Your task to perform on an android device: change the clock display to show seconds Image 0: 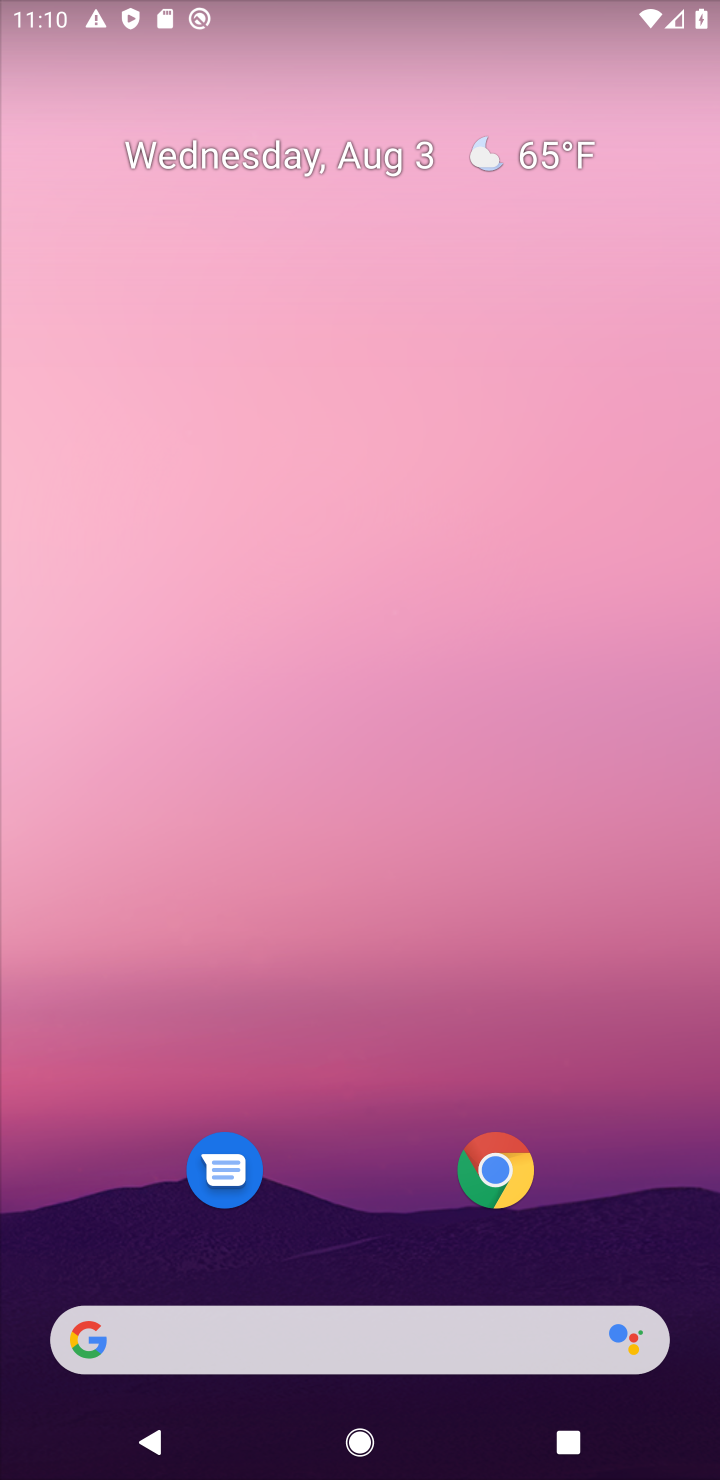
Step 0: click (238, 306)
Your task to perform on an android device: change the clock display to show seconds Image 1: 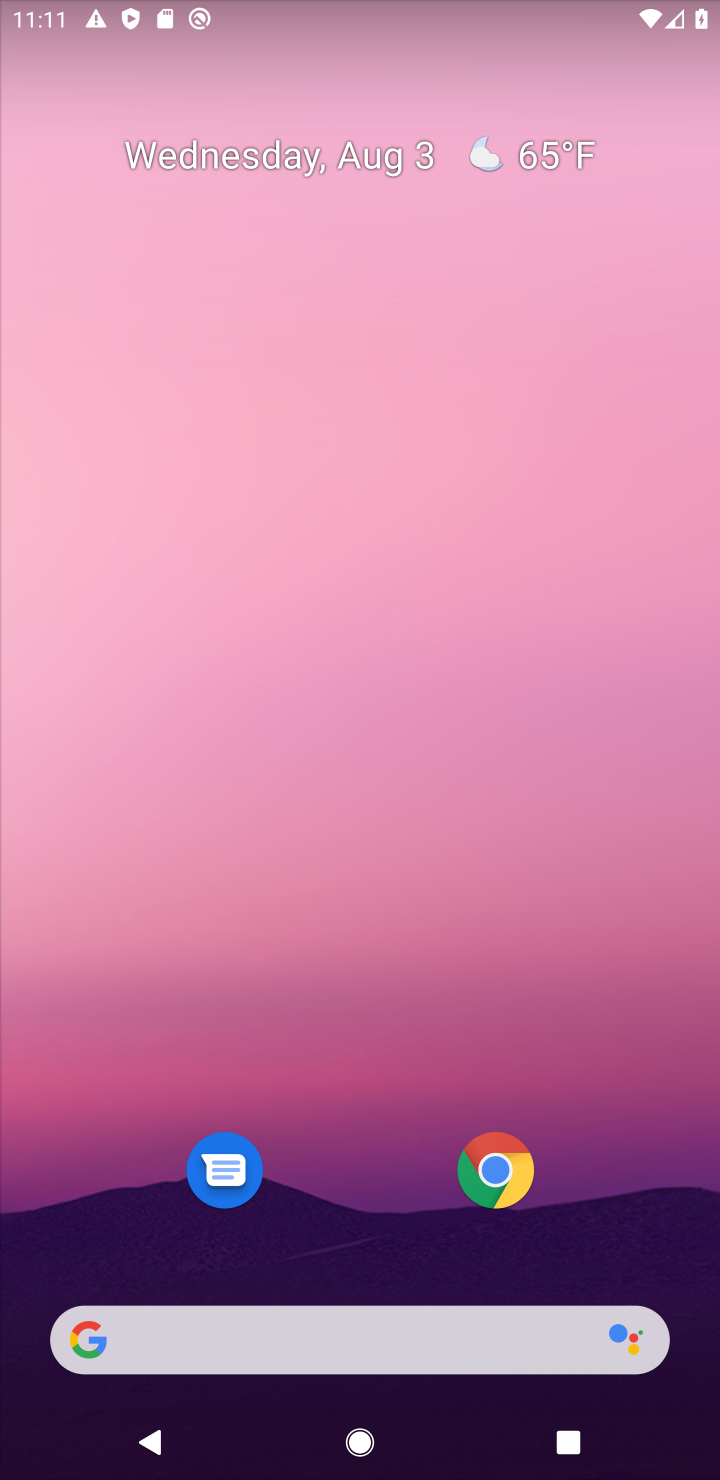
Step 1: drag from (332, 723) to (350, 88)
Your task to perform on an android device: change the clock display to show seconds Image 2: 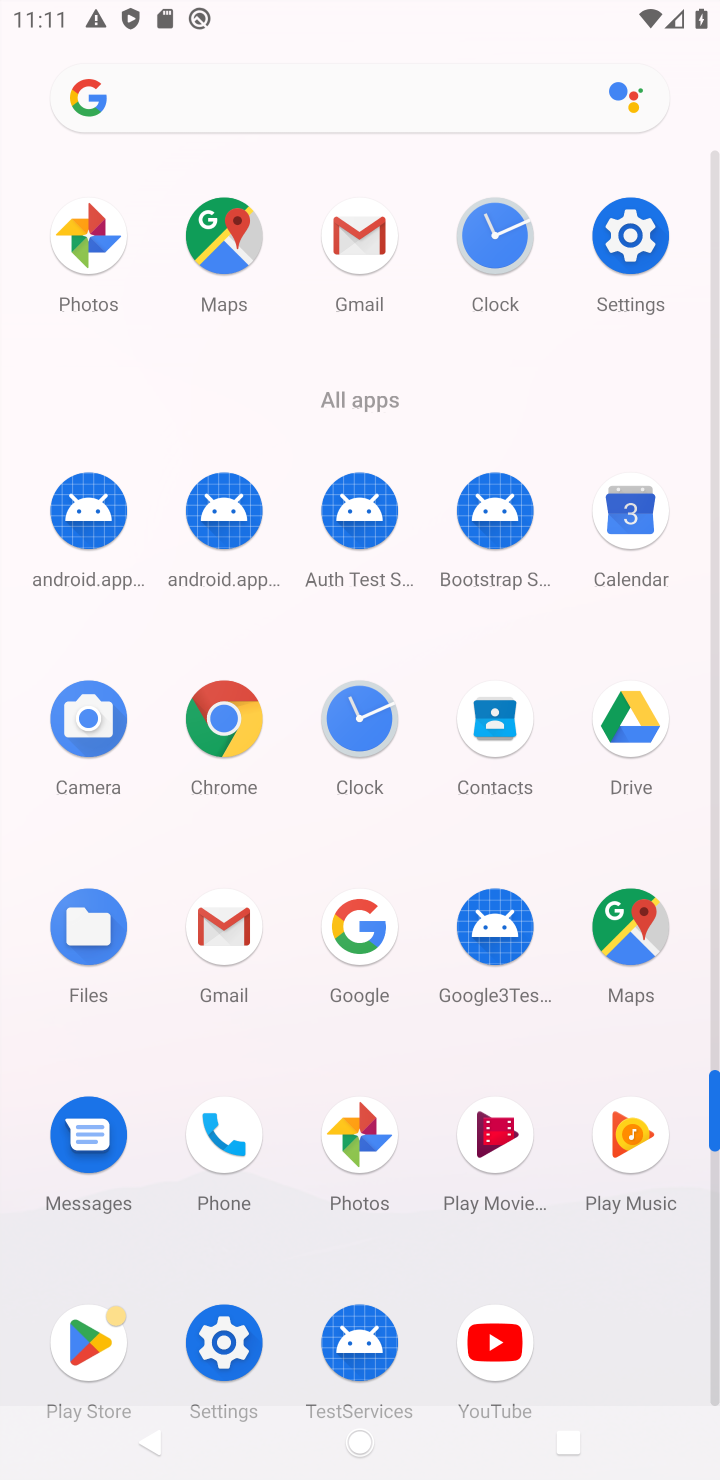
Step 2: drag from (354, 1225) to (314, 282)
Your task to perform on an android device: change the clock display to show seconds Image 3: 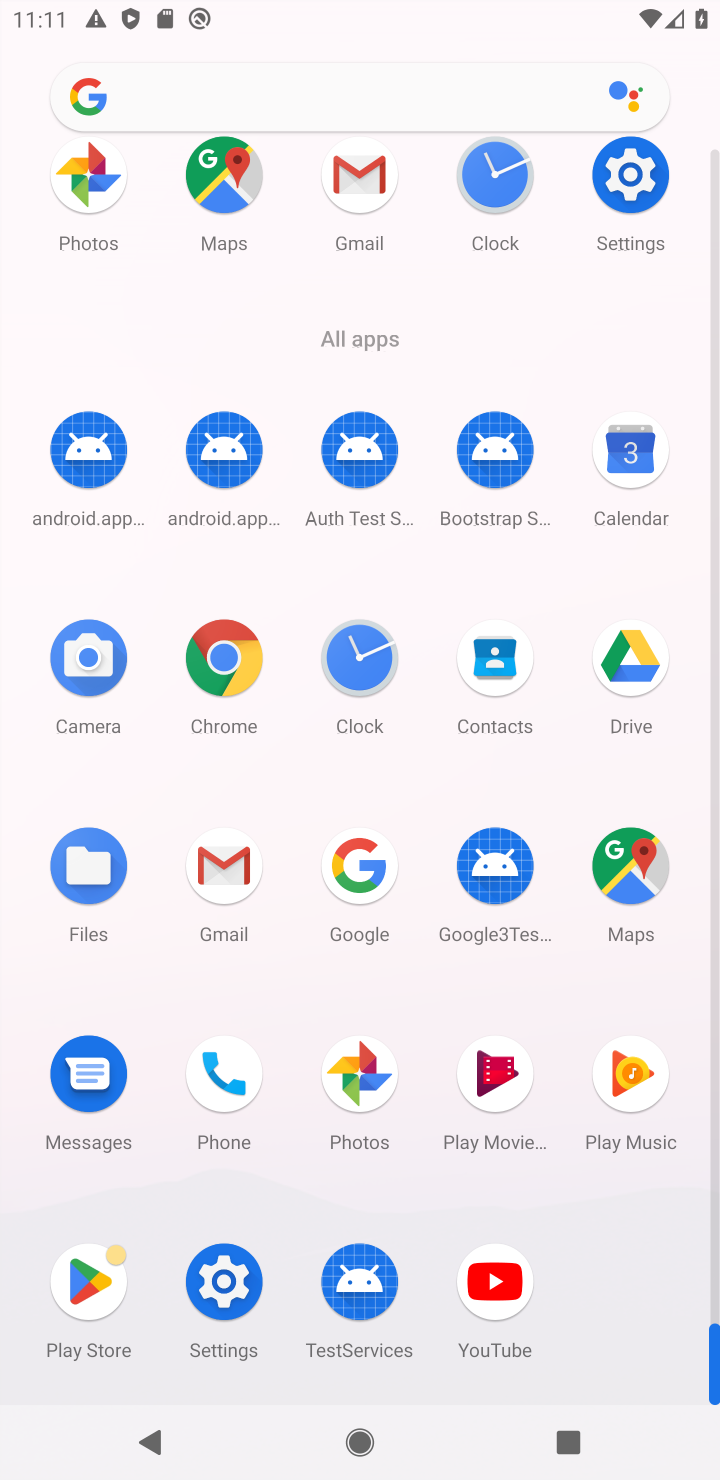
Step 3: drag from (326, 503) to (363, 416)
Your task to perform on an android device: change the clock display to show seconds Image 4: 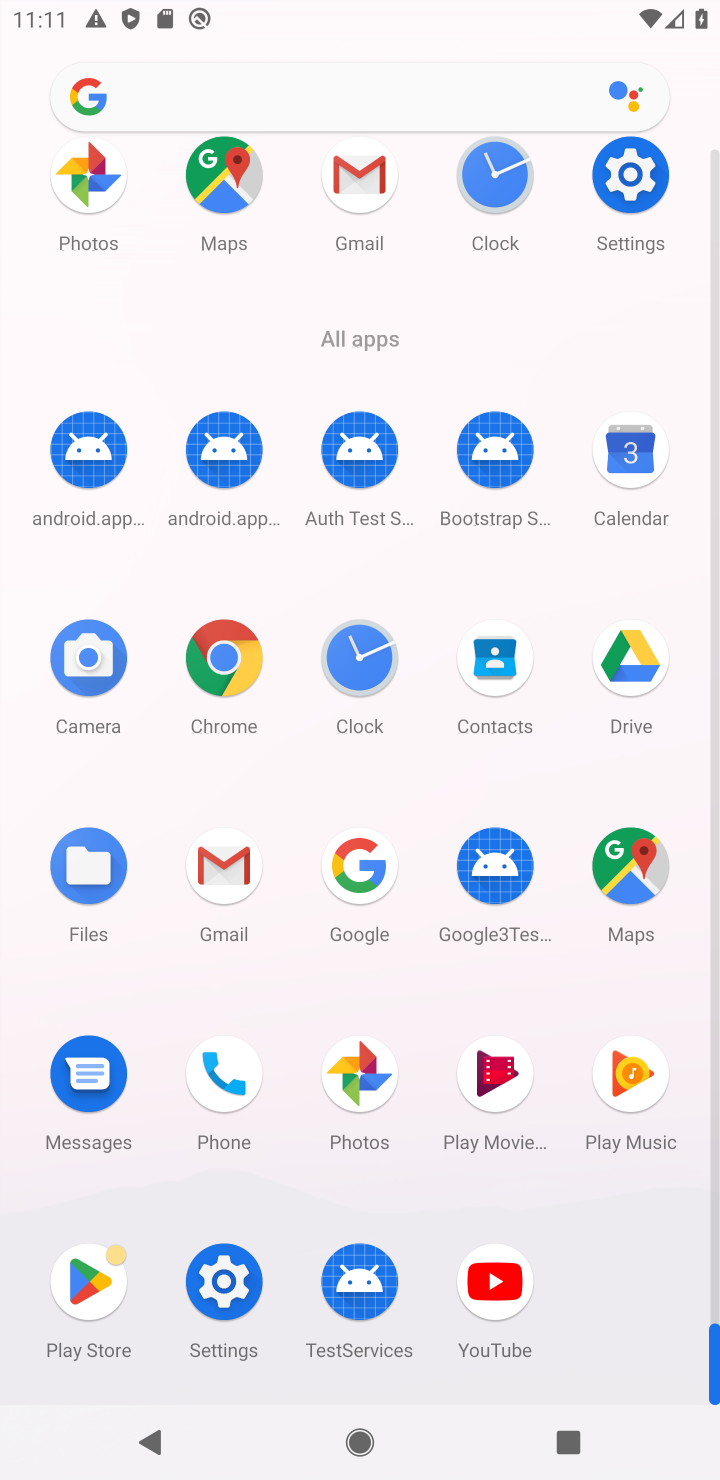
Step 4: click (365, 661)
Your task to perform on an android device: change the clock display to show seconds Image 5: 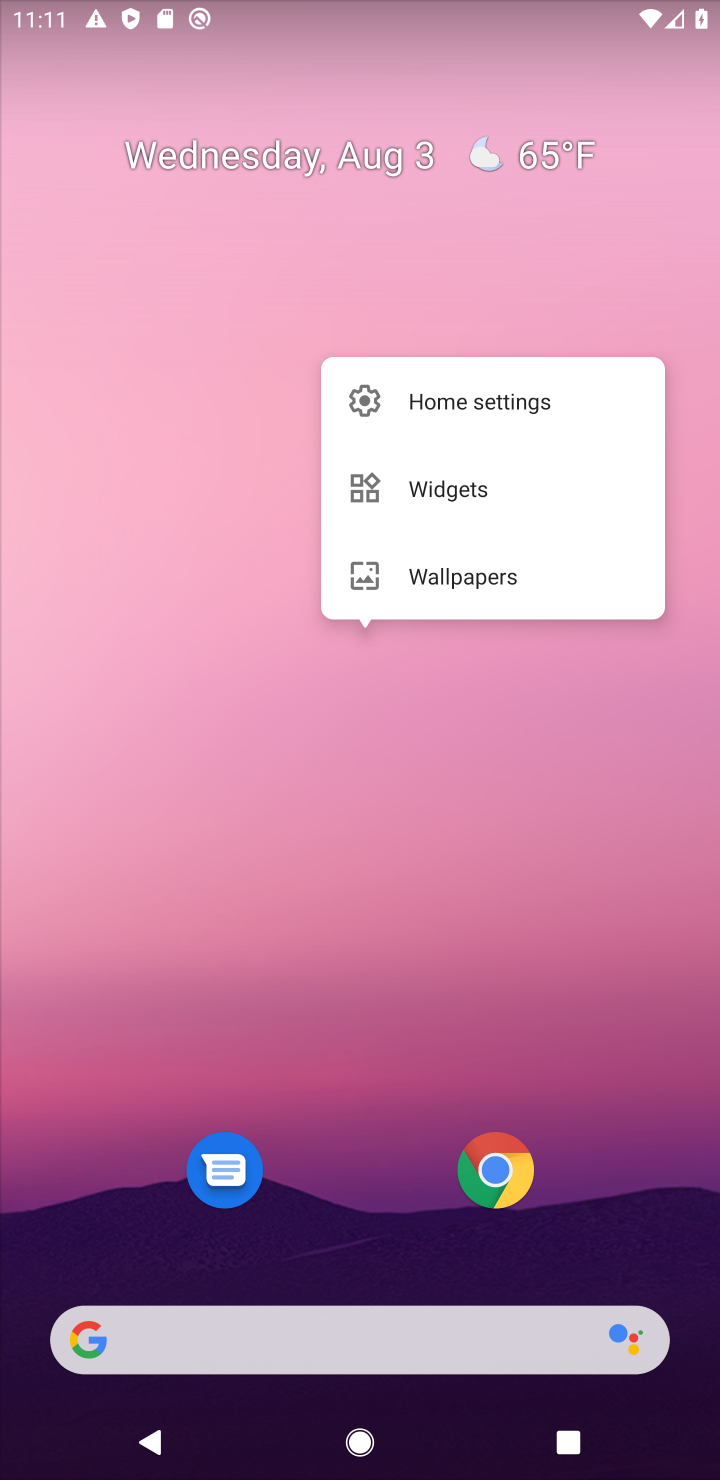
Step 5: drag from (318, 943) to (321, 307)
Your task to perform on an android device: change the clock display to show seconds Image 6: 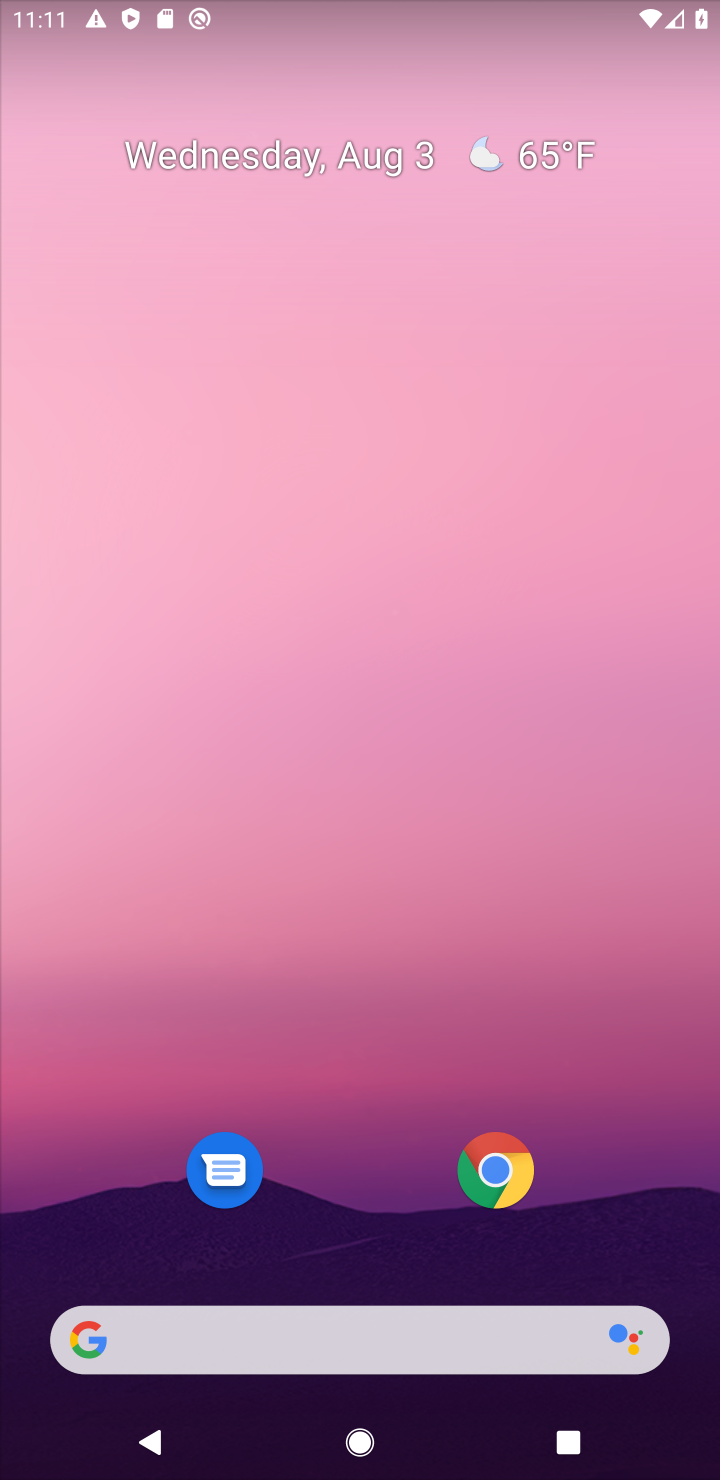
Step 6: drag from (319, 1005) to (503, 8)
Your task to perform on an android device: change the clock display to show seconds Image 7: 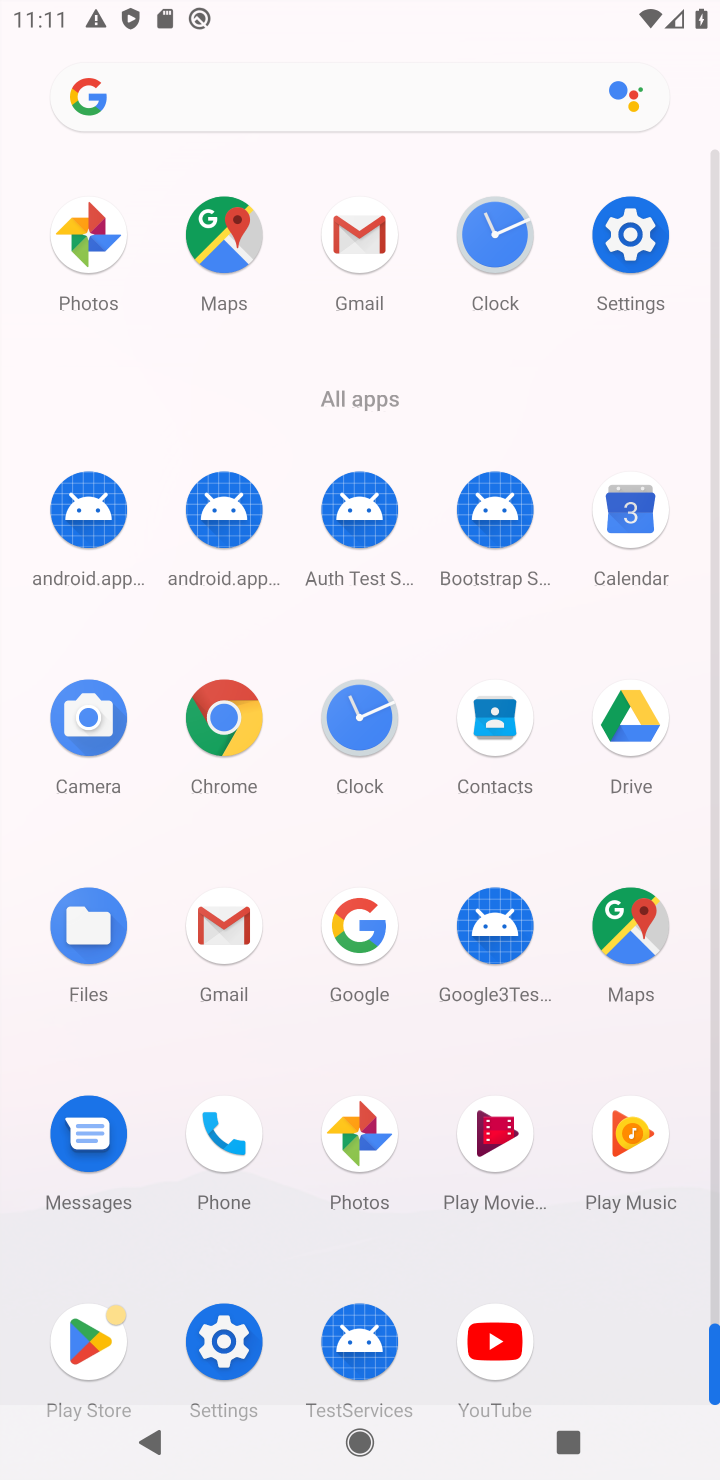
Step 7: click (330, 711)
Your task to perform on an android device: change the clock display to show seconds Image 8: 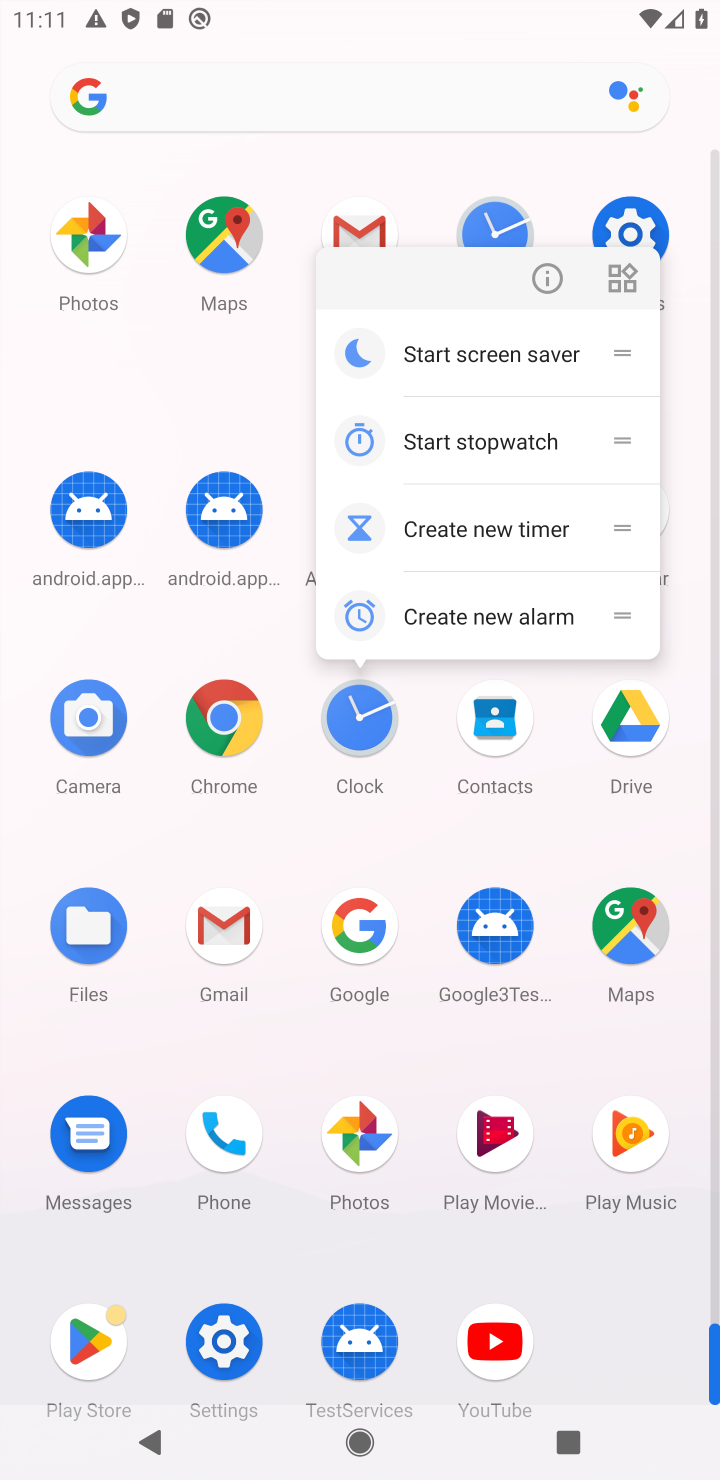
Step 8: click (558, 264)
Your task to perform on an android device: change the clock display to show seconds Image 9: 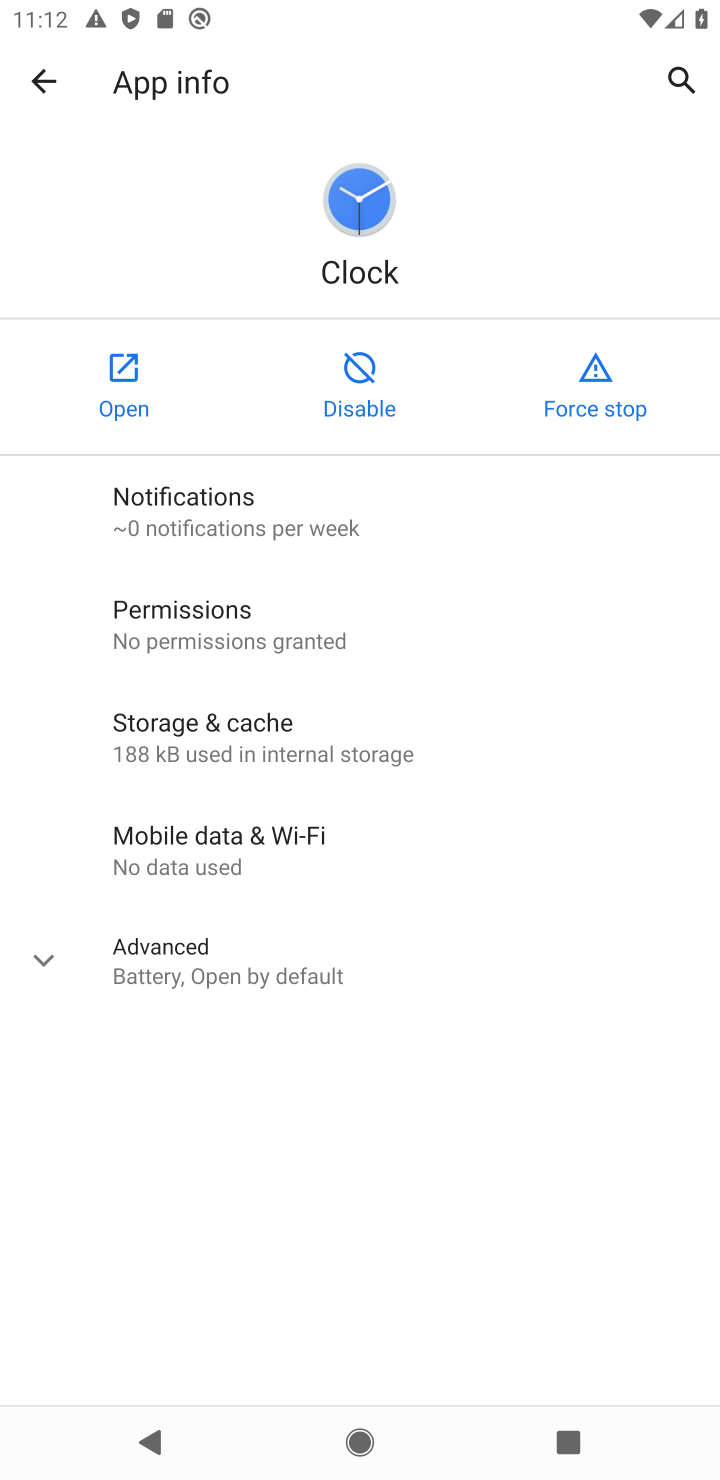
Step 9: click (119, 401)
Your task to perform on an android device: change the clock display to show seconds Image 10: 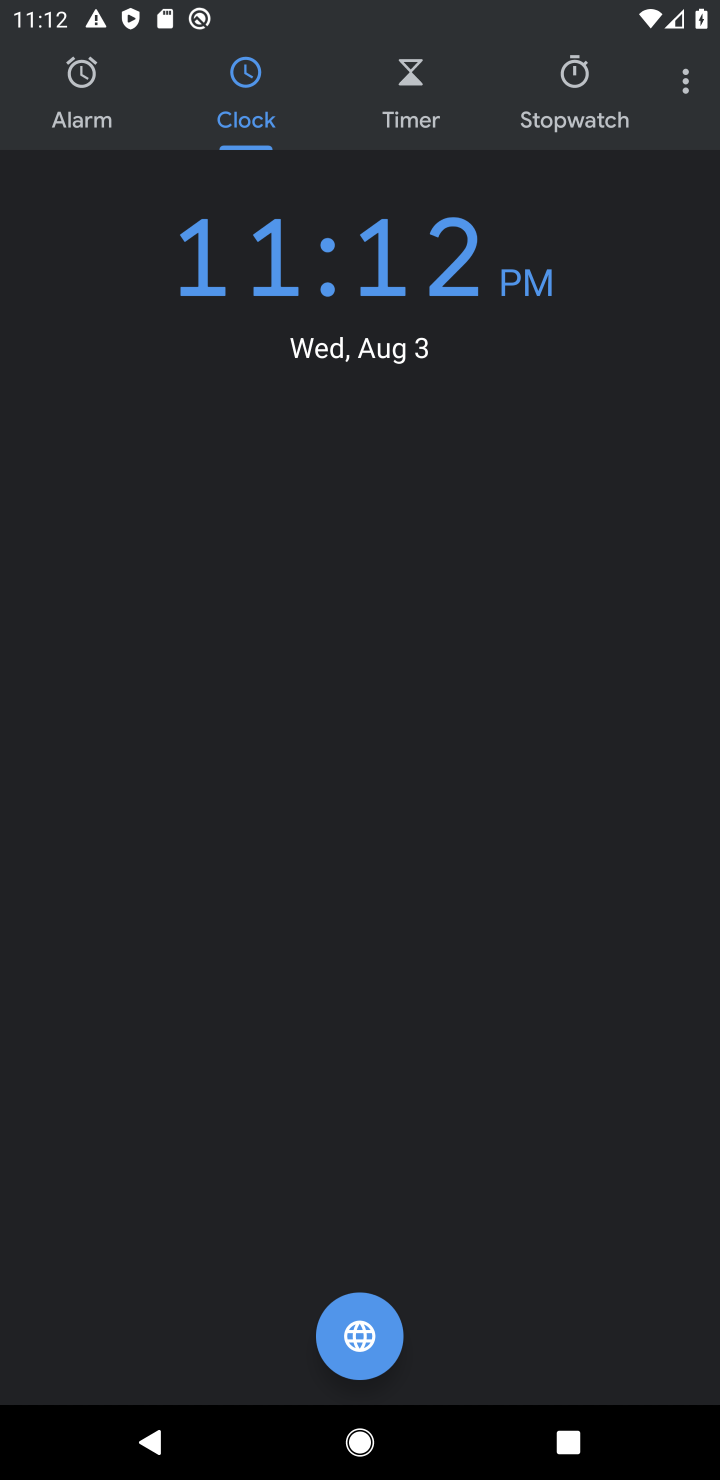
Step 10: drag from (361, 1011) to (378, 412)
Your task to perform on an android device: change the clock display to show seconds Image 11: 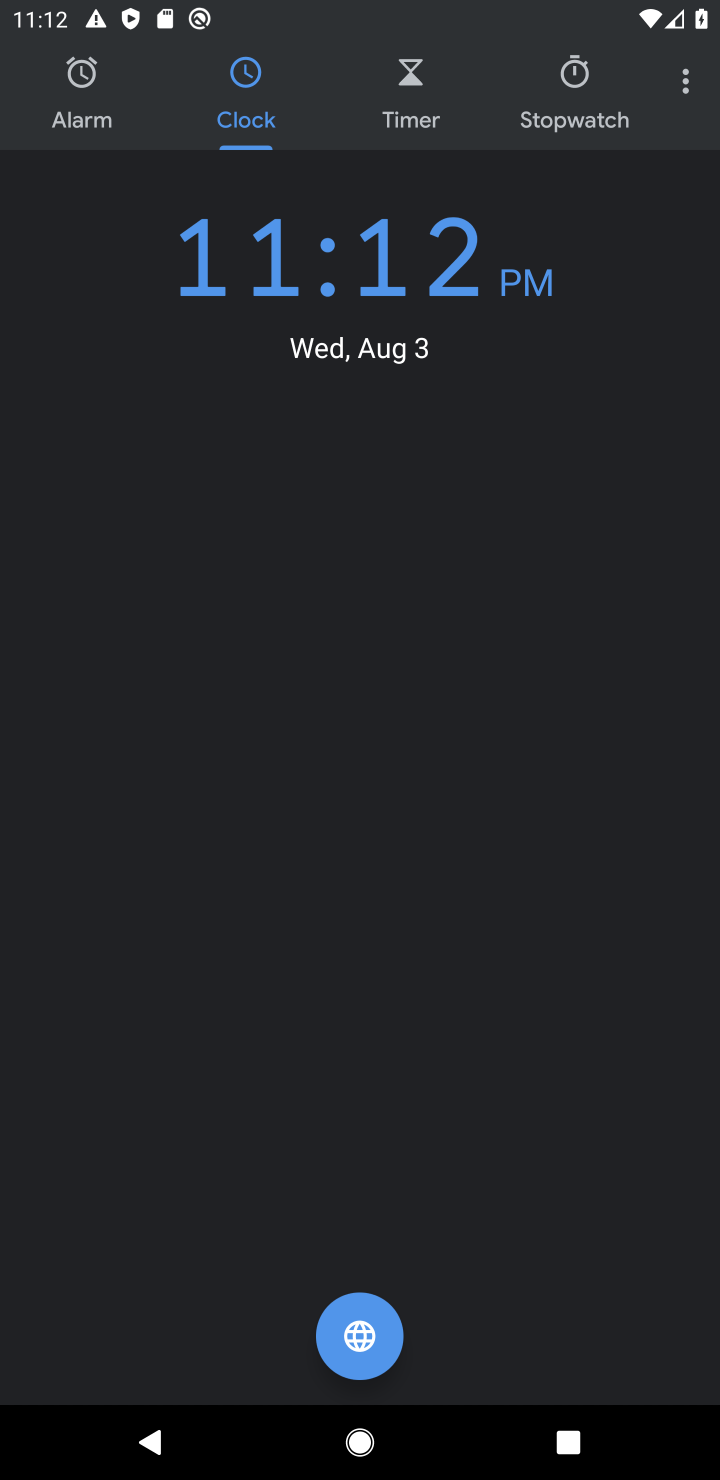
Step 11: click (386, 604)
Your task to perform on an android device: change the clock display to show seconds Image 12: 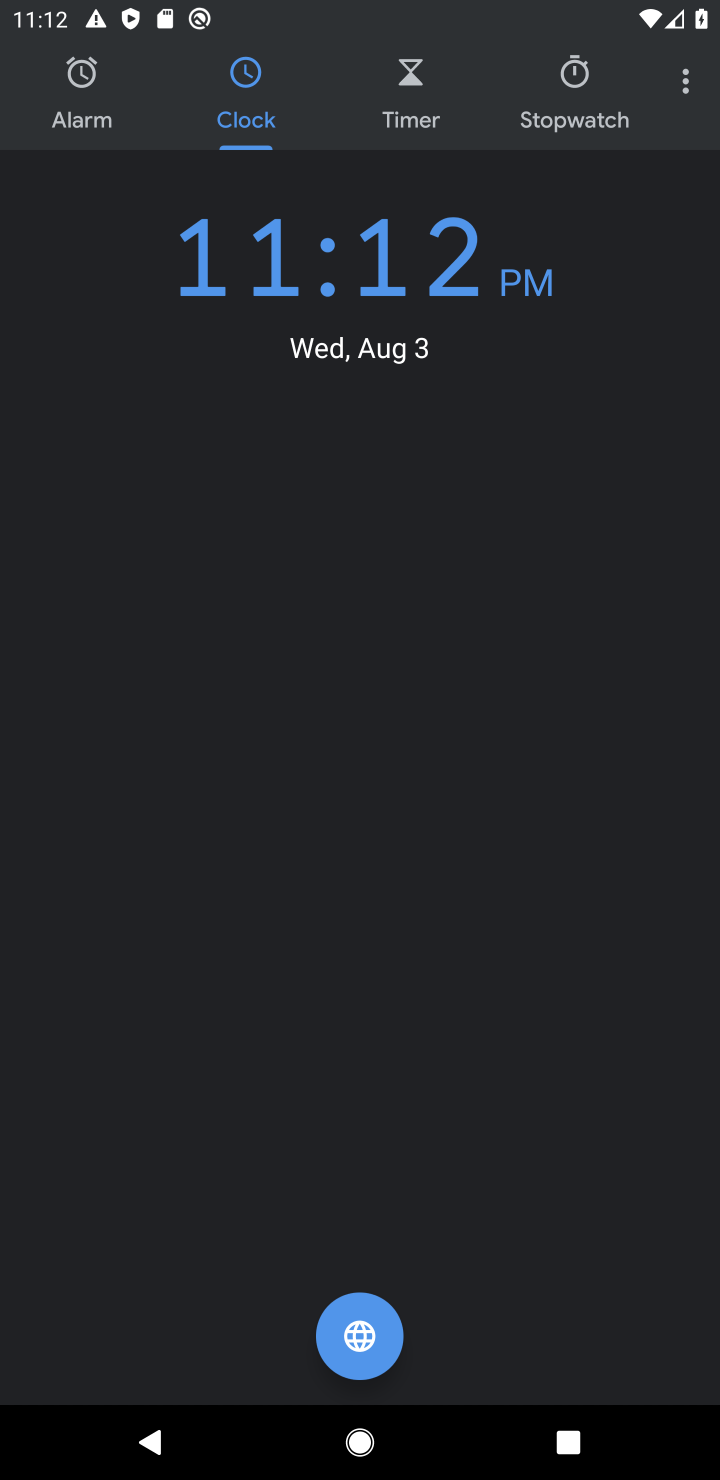
Step 12: click (685, 117)
Your task to perform on an android device: change the clock display to show seconds Image 13: 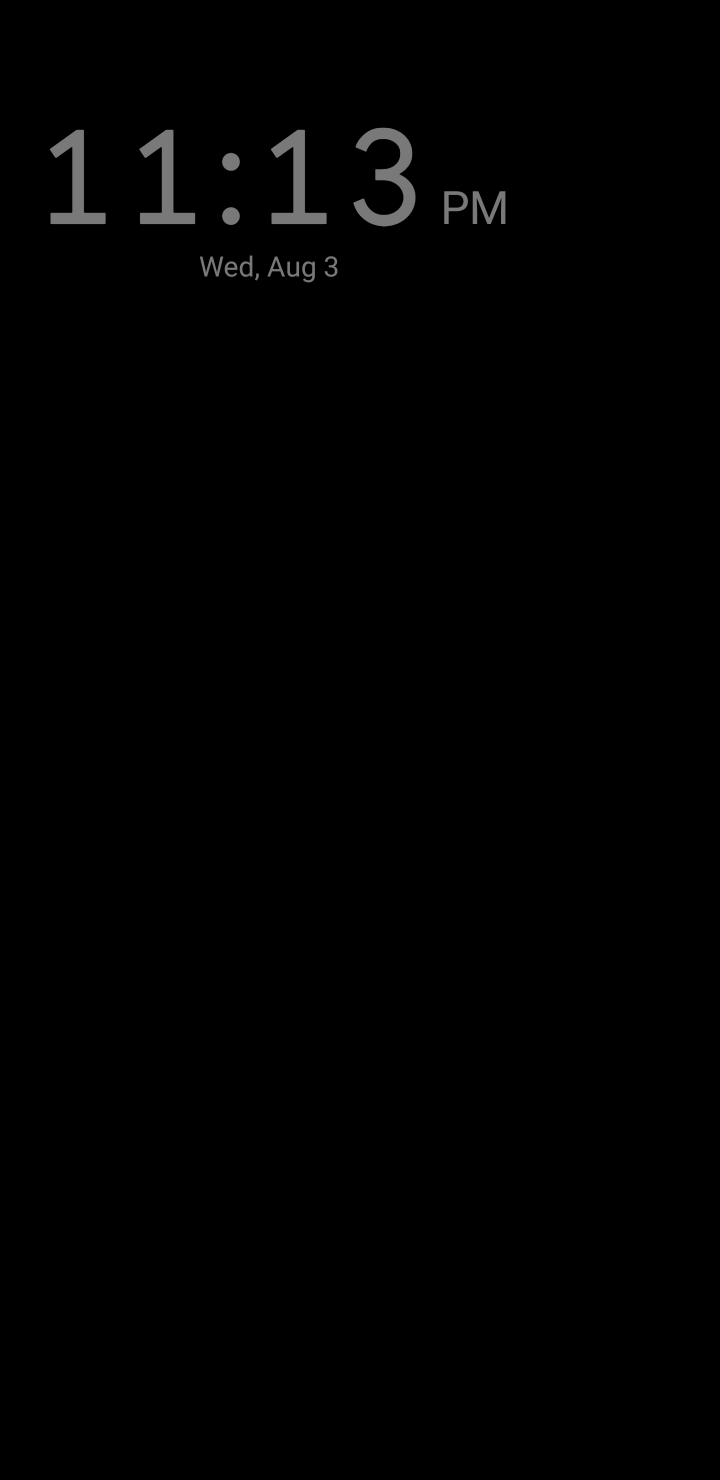
Step 13: click (408, 833)
Your task to perform on an android device: change the clock display to show seconds Image 14: 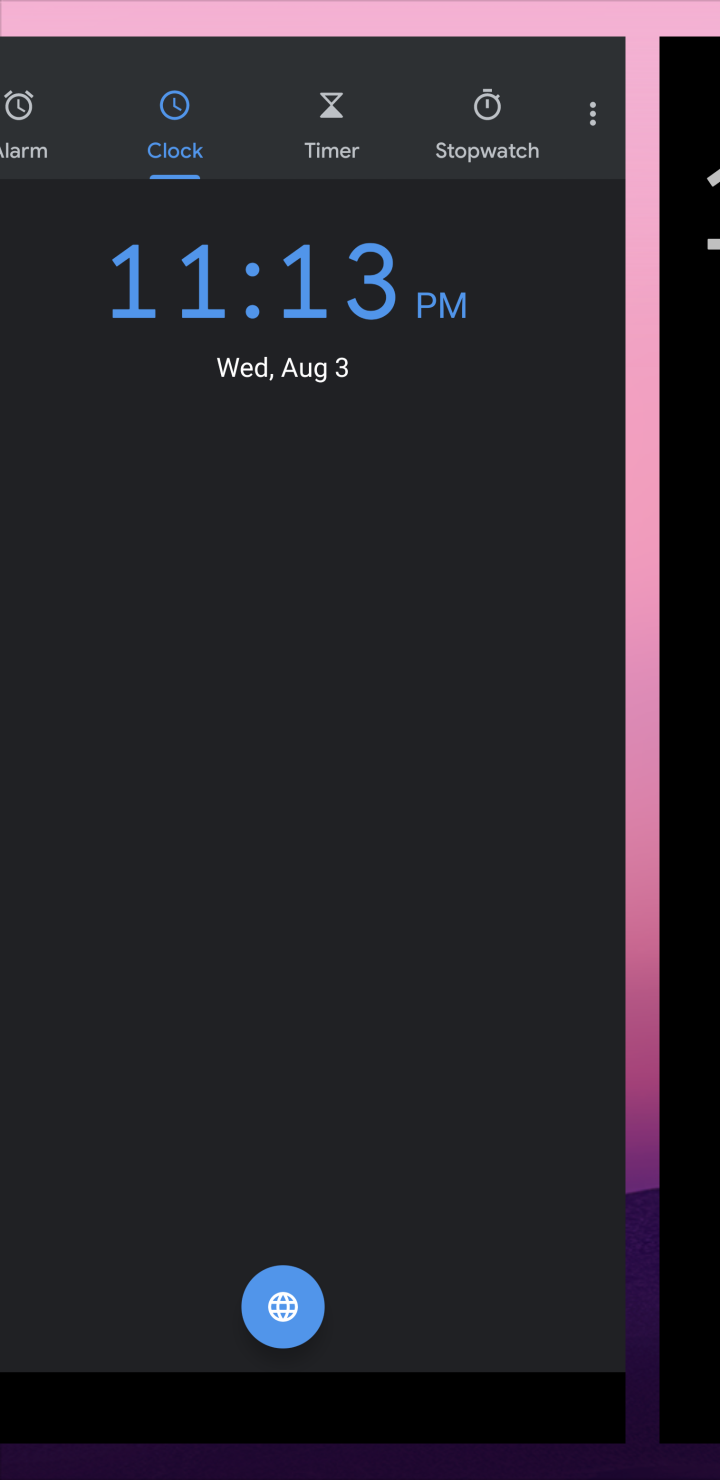
Step 14: drag from (355, 816) to (657, 138)
Your task to perform on an android device: change the clock display to show seconds Image 15: 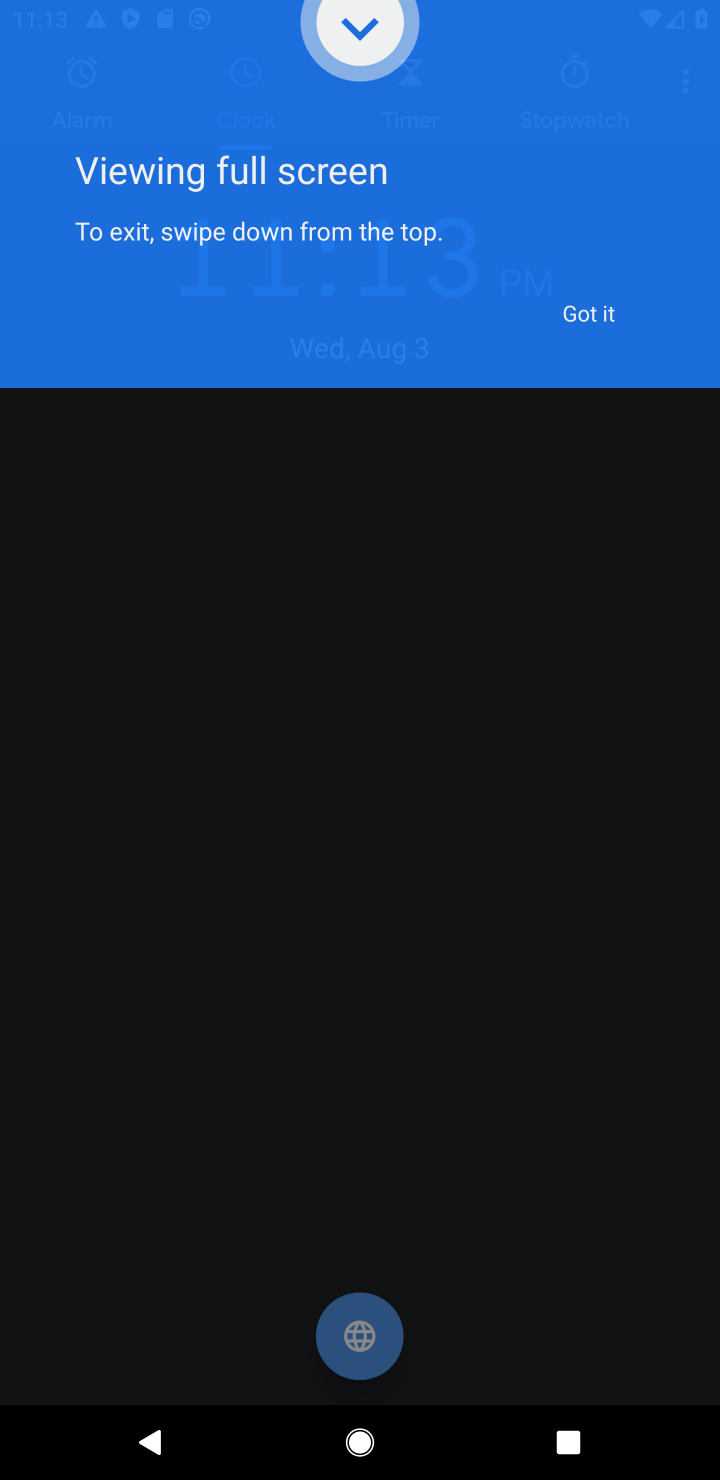
Step 15: click (673, 83)
Your task to perform on an android device: change the clock display to show seconds Image 16: 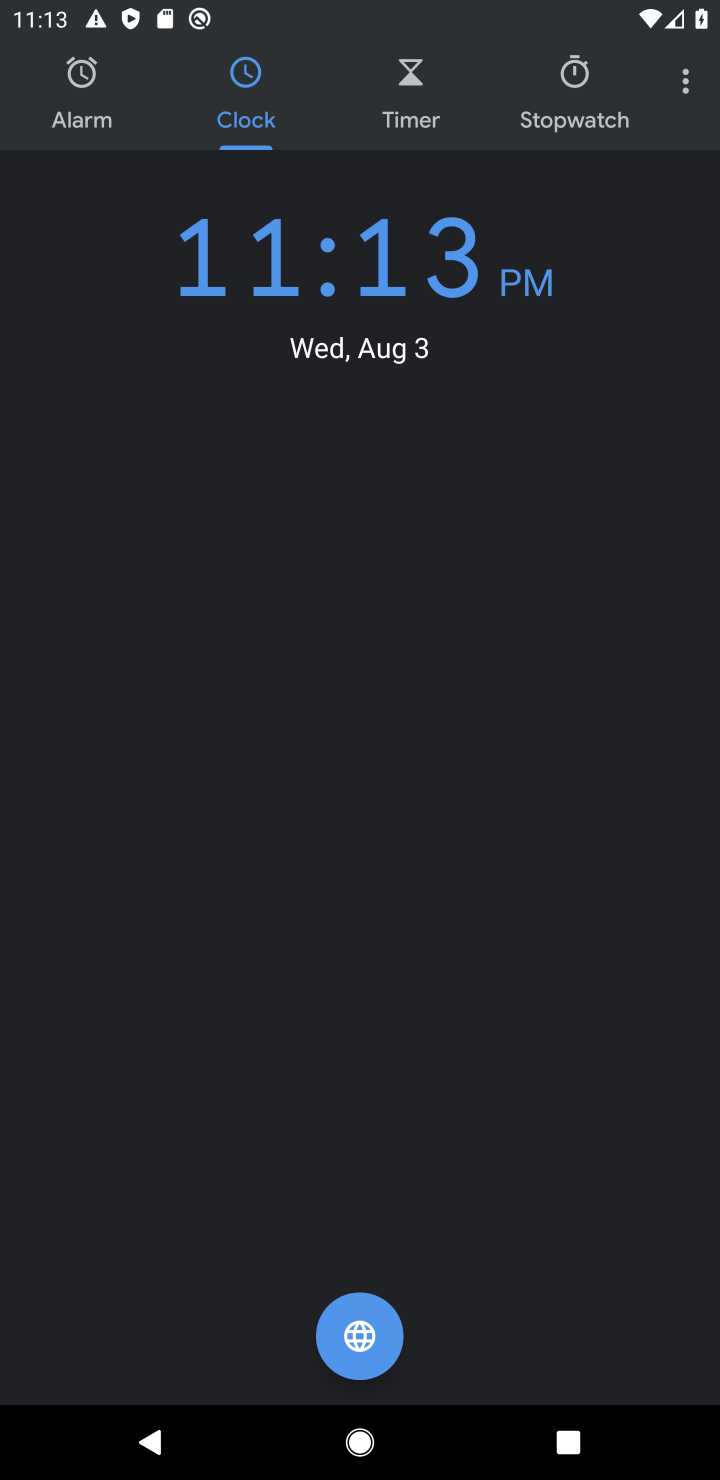
Step 16: click (694, 96)
Your task to perform on an android device: change the clock display to show seconds Image 17: 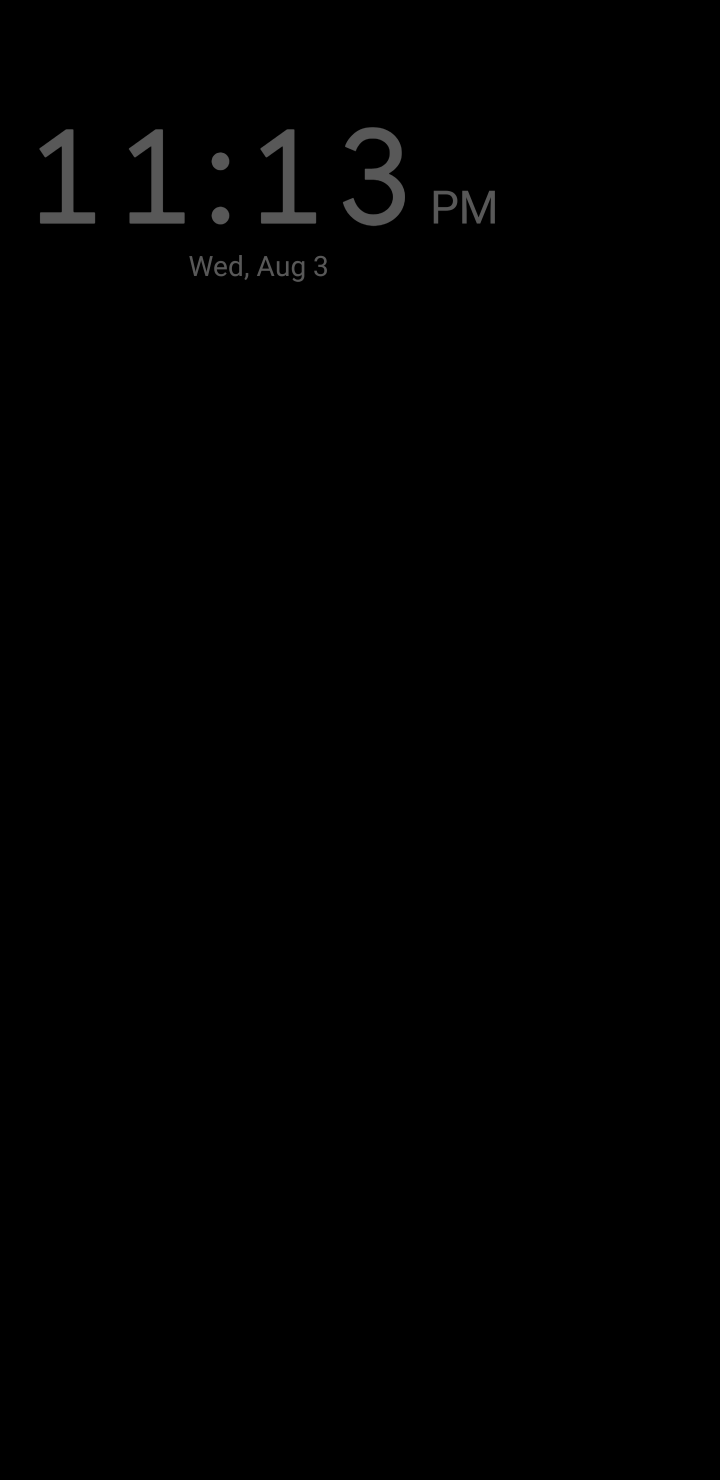
Step 17: drag from (329, 1146) to (674, 88)
Your task to perform on an android device: change the clock display to show seconds Image 18: 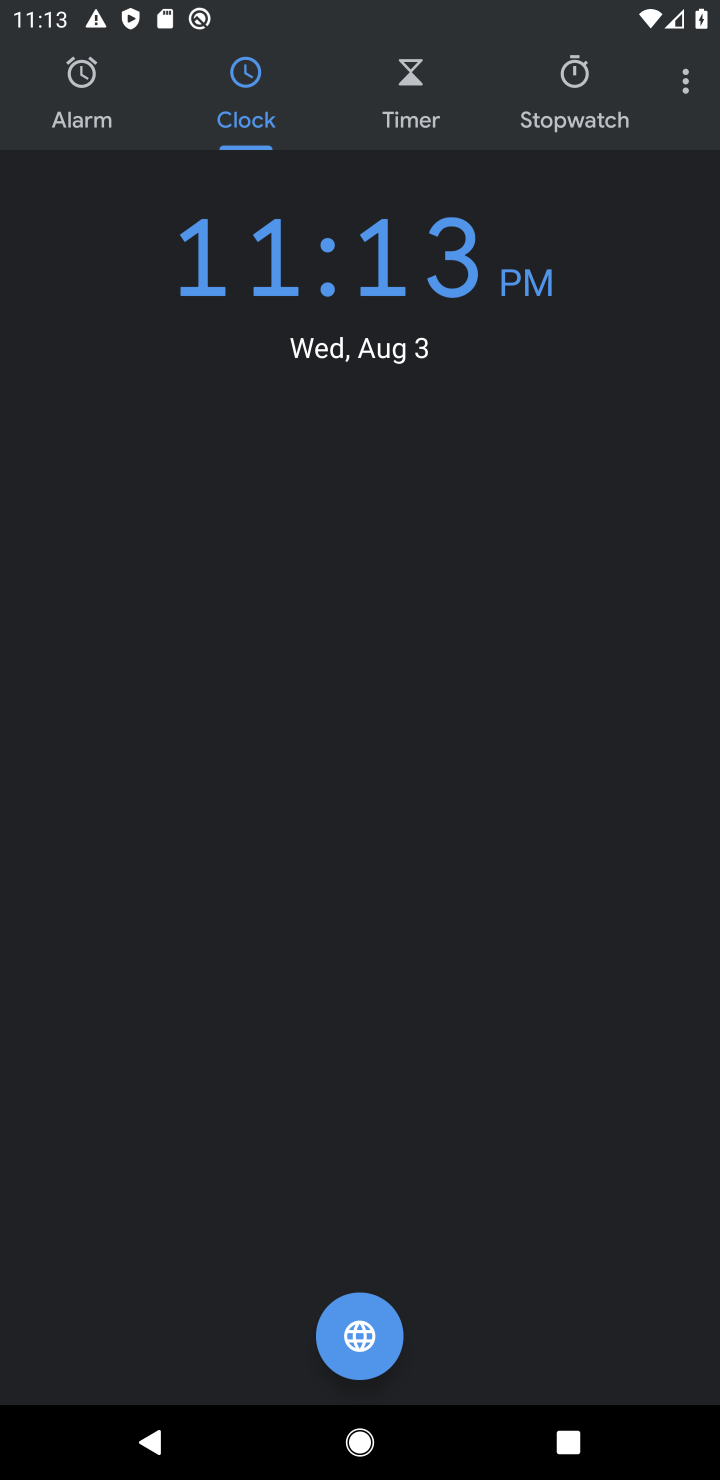
Step 18: click (684, 95)
Your task to perform on an android device: change the clock display to show seconds Image 19: 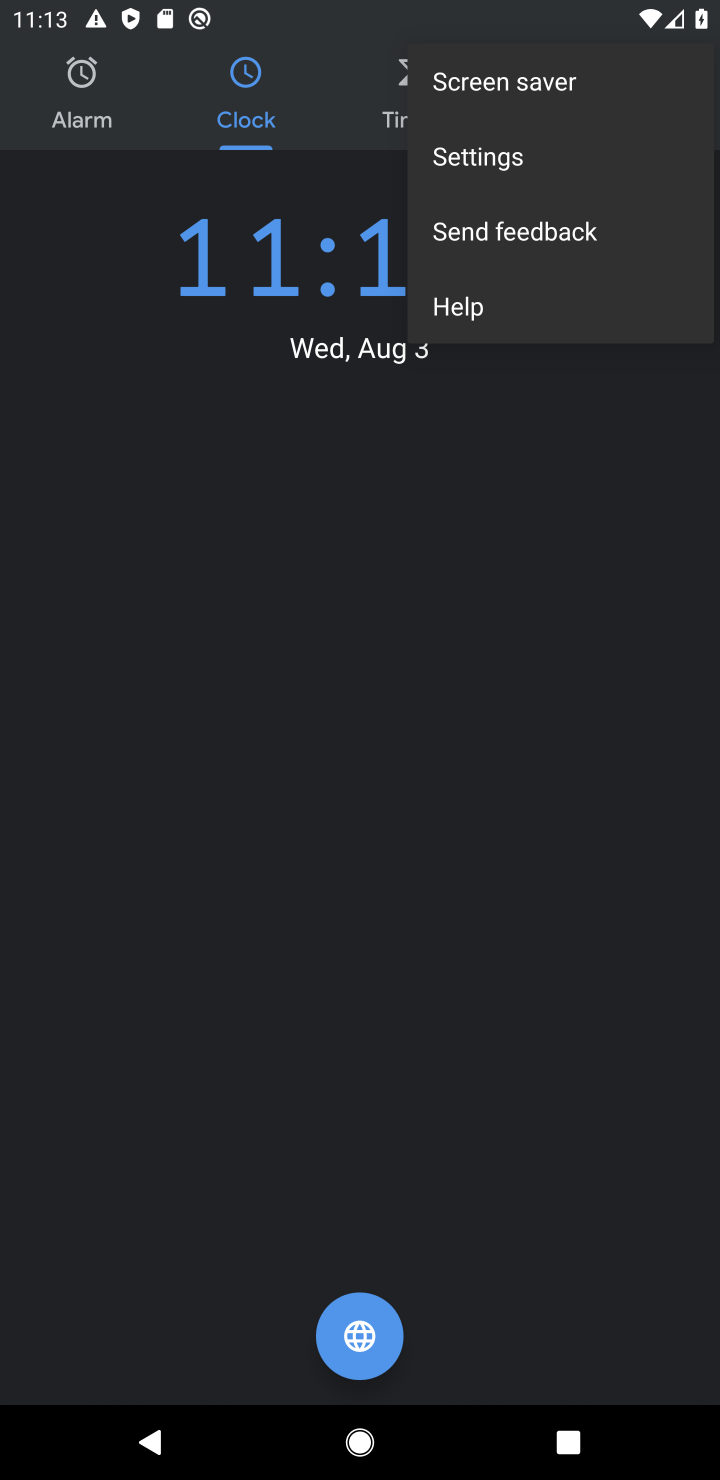
Step 19: click (485, 153)
Your task to perform on an android device: change the clock display to show seconds Image 20: 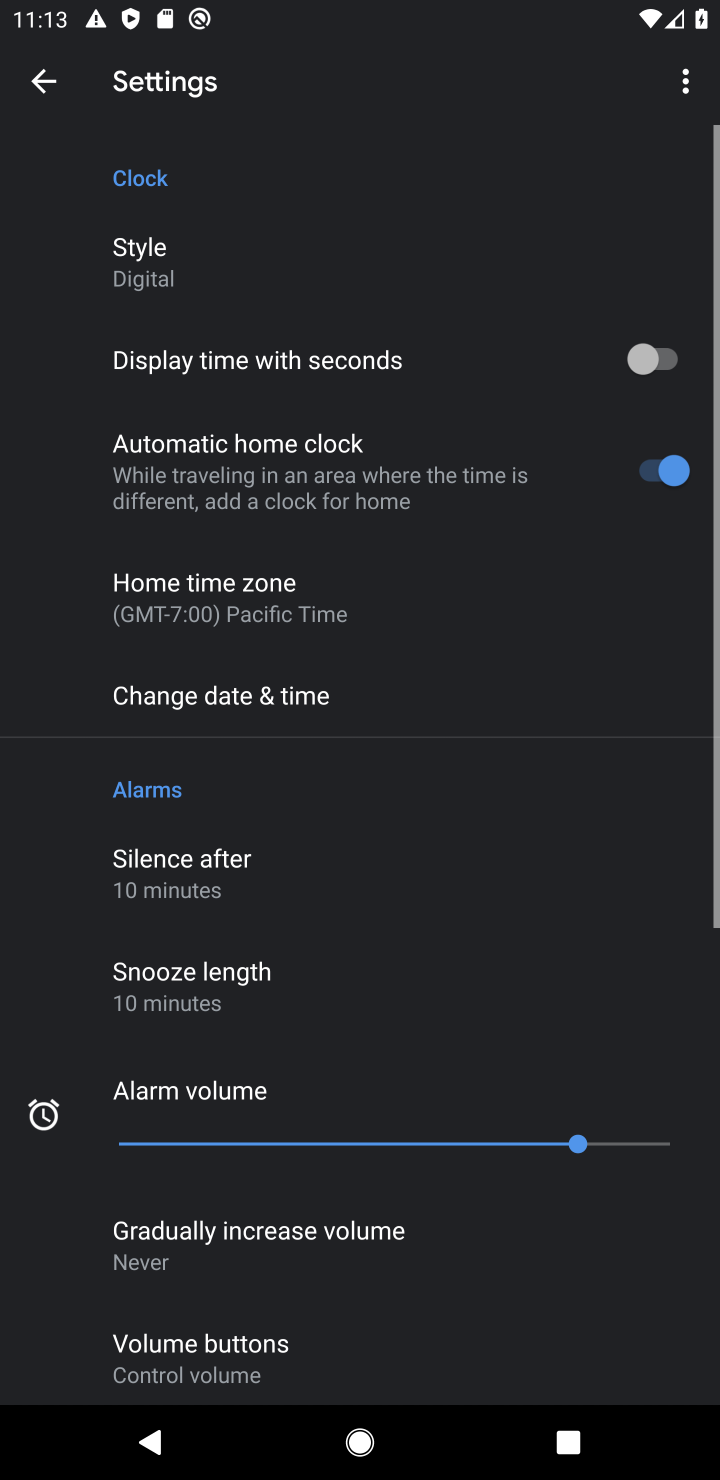
Step 20: click (620, 367)
Your task to perform on an android device: change the clock display to show seconds Image 21: 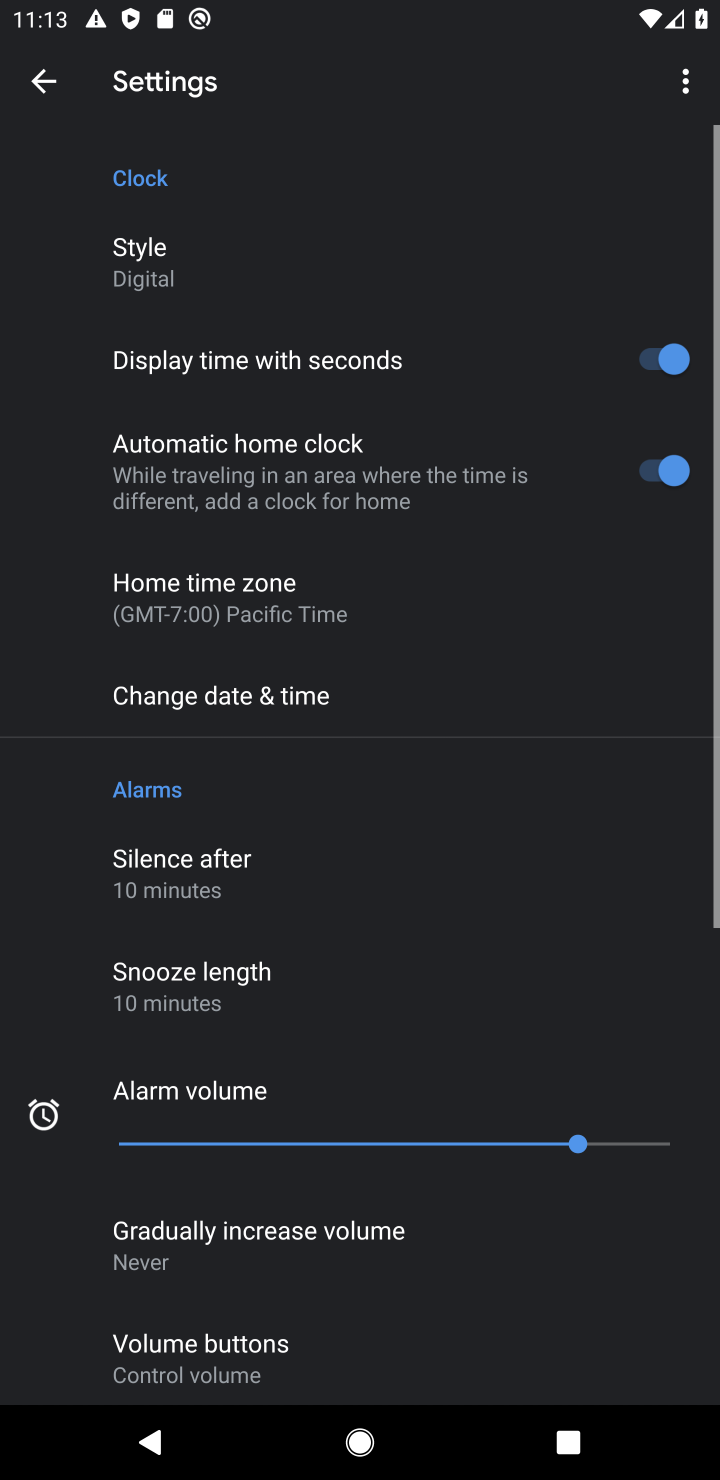
Step 21: task complete